Your task to perform on an android device: turn on wifi Image 0: 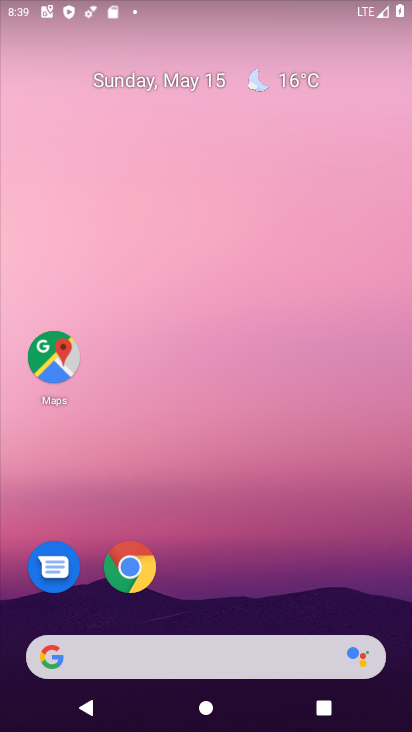
Step 0: drag from (222, 647) to (190, 33)
Your task to perform on an android device: turn on wifi Image 1: 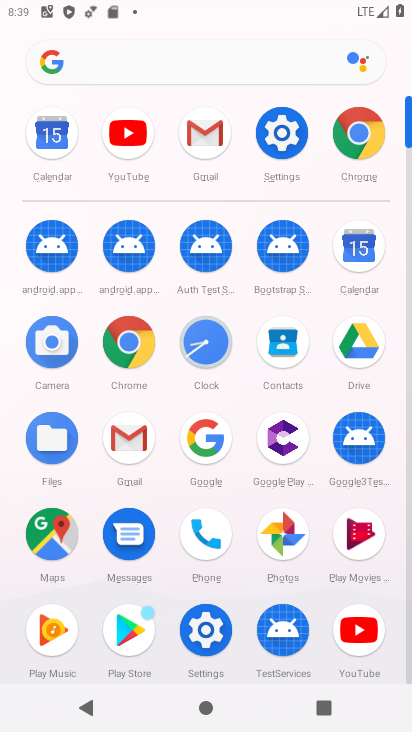
Step 1: click (280, 132)
Your task to perform on an android device: turn on wifi Image 2: 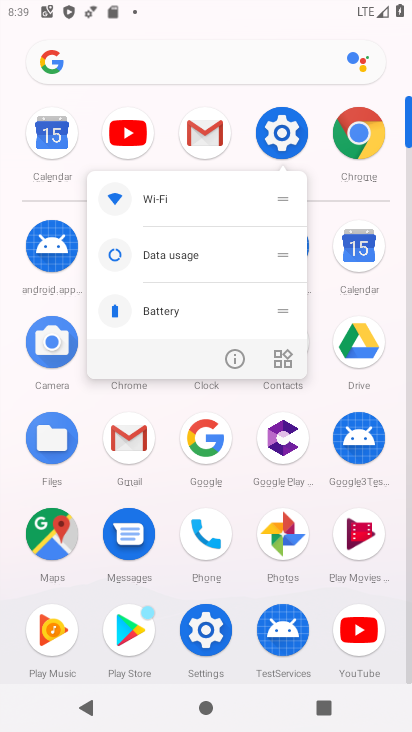
Step 2: click (267, 143)
Your task to perform on an android device: turn on wifi Image 3: 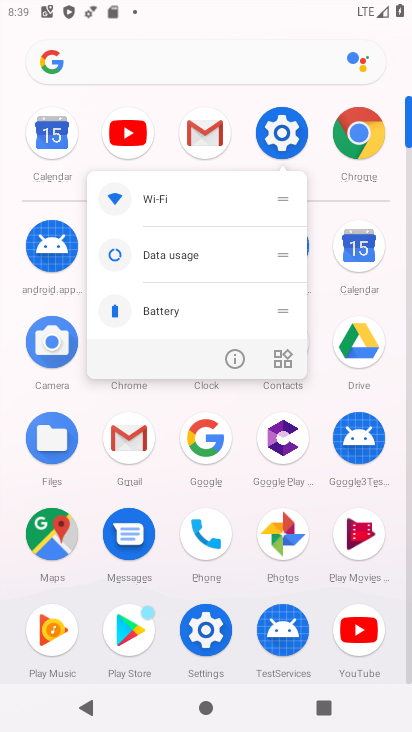
Step 3: click (298, 137)
Your task to perform on an android device: turn on wifi Image 4: 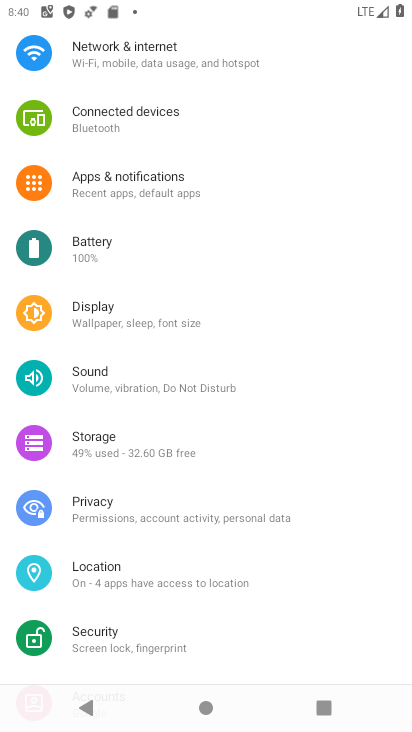
Step 4: drag from (304, 107) to (310, 621)
Your task to perform on an android device: turn on wifi Image 5: 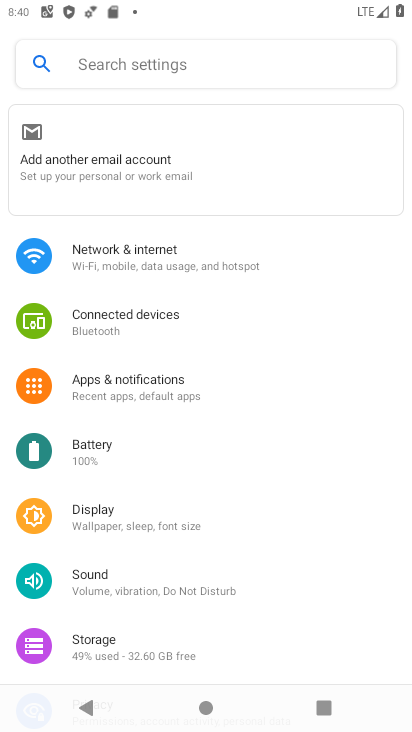
Step 5: click (177, 260)
Your task to perform on an android device: turn on wifi Image 6: 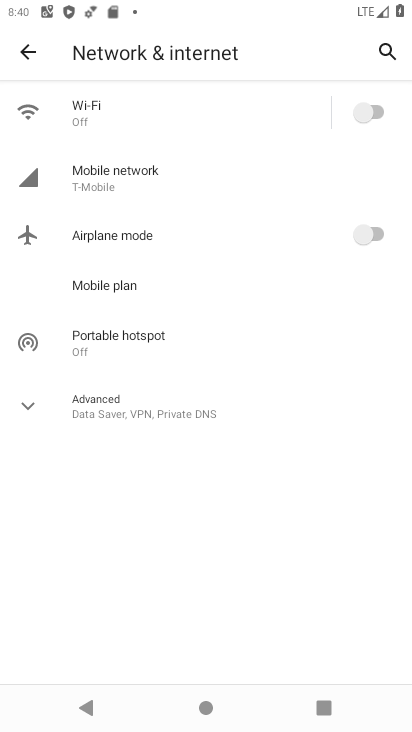
Step 6: click (378, 112)
Your task to perform on an android device: turn on wifi Image 7: 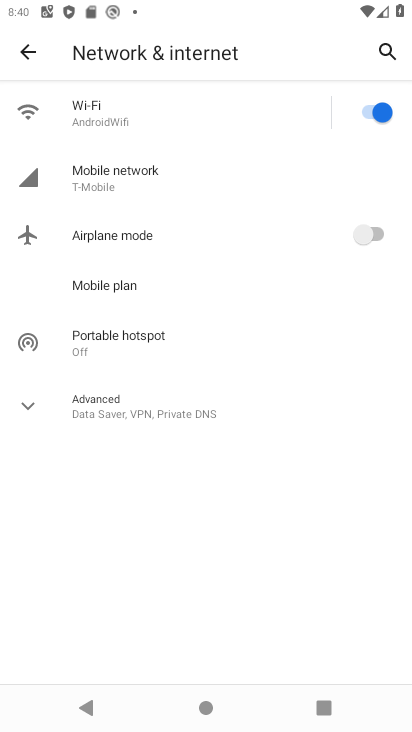
Step 7: task complete